Your task to perform on an android device: Go to internet settings Image 0: 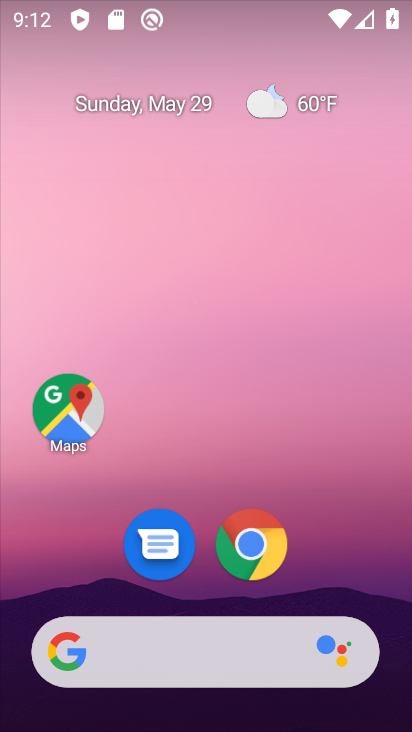
Step 0: drag from (341, 559) to (374, 64)
Your task to perform on an android device: Go to internet settings Image 1: 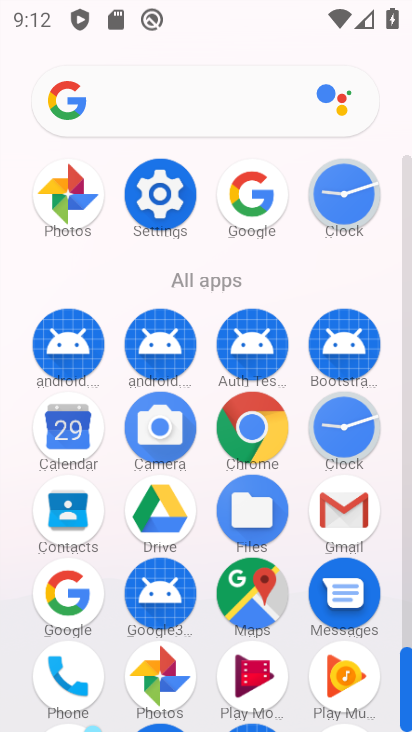
Step 1: click (156, 193)
Your task to perform on an android device: Go to internet settings Image 2: 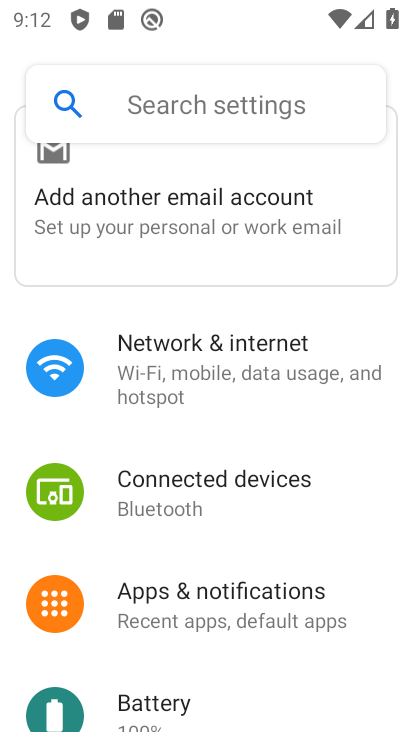
Step 2: click (198, 383)
Your task to perform on an android device: Go to internet settings Image 3: 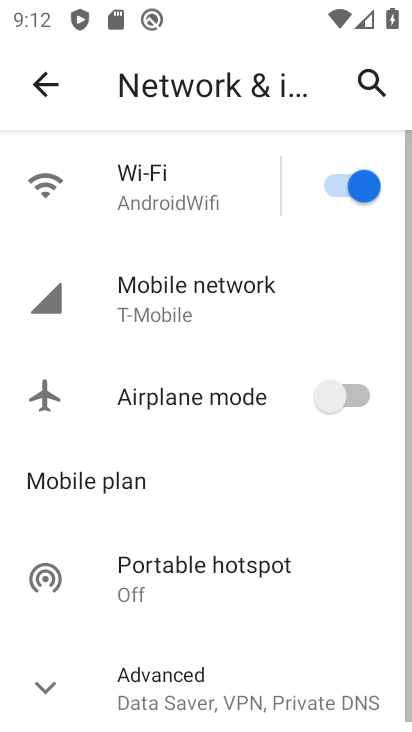
Step 3: click (172, 191)
Your task to perform on an android device: Go to internet settings Image 4: 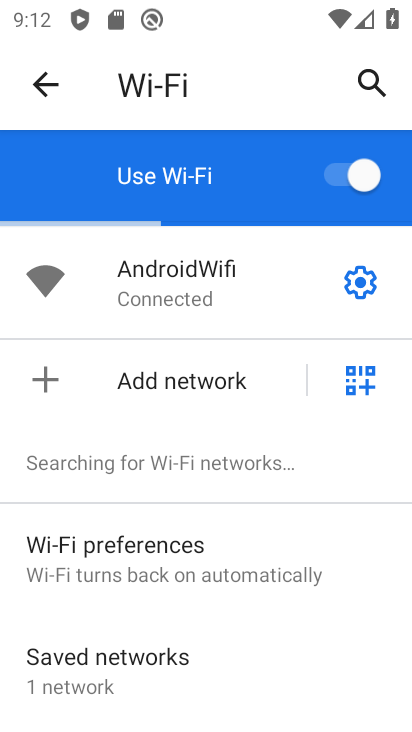
Step 4: click (215, 299)
Your task to perform on an android device: Go to internet settings Image 5: 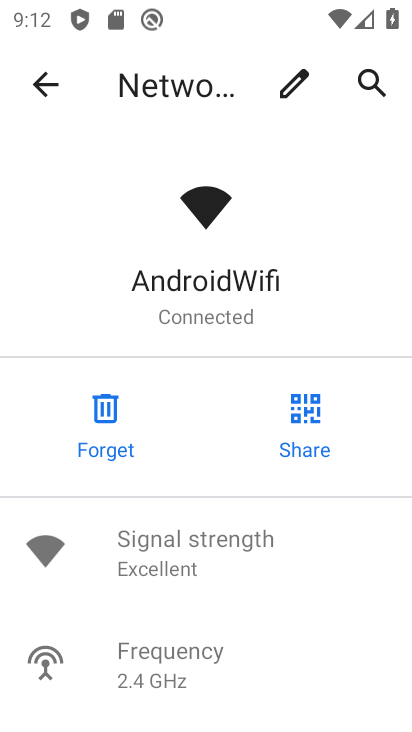
Step 5: task complete